Your task to perform on an android device: Open settings Image 0: 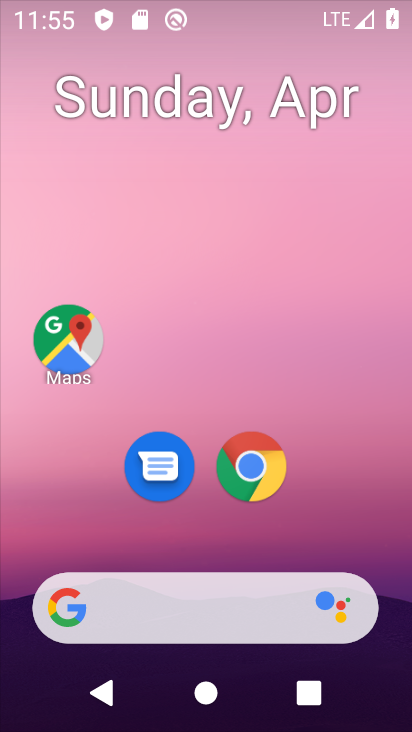
Step 0: drag from (350, 504) to (315, 161)
Your task to perform on an android device: Open settings Image 1: 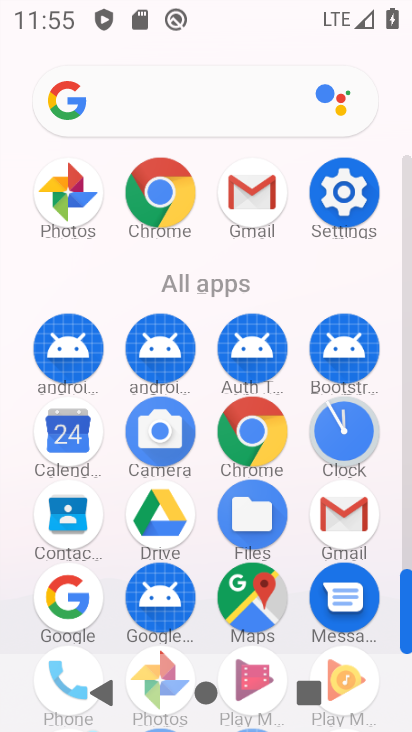
Step 1: click (342, 216)
Your task to perform on an android device: Open settings Image 2: 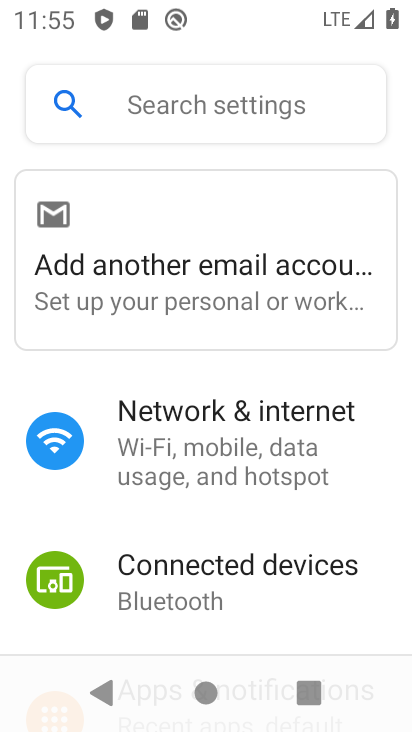
Step 2: task complete